Your task to perform on an android device: Open privacy settings Image 0: 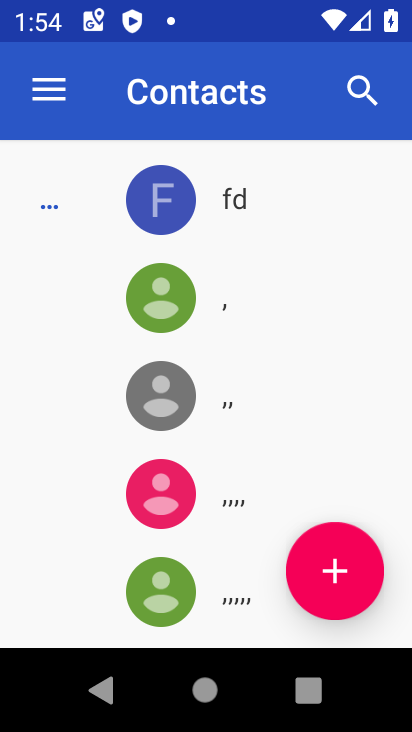
Step 0: press home button
Your task to perform on an android device: Open privacy settings Image 1: 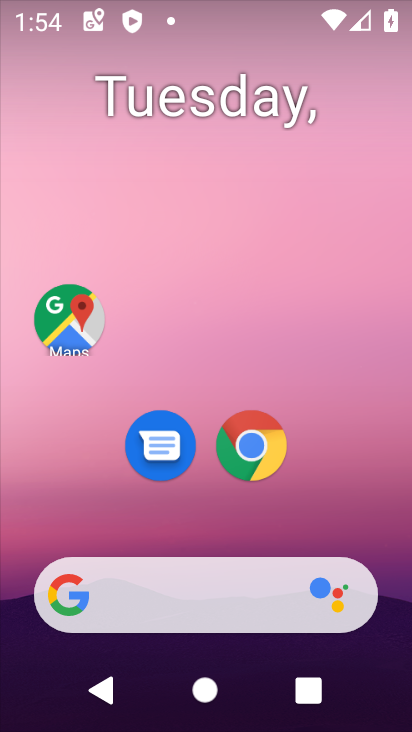
Step 1: drag from (336, 472) to (62, 1)
Your task to perform on an android device: Open privacy settings Image 2: 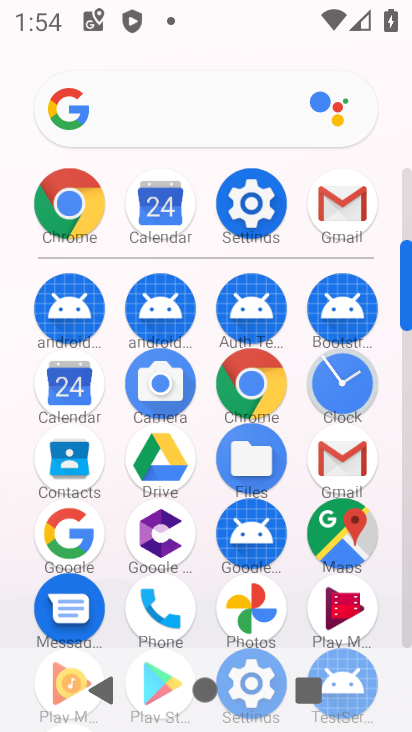
Step 2: click (234, 205)
Your task to perform on an android device: Open privacy settings Image 3: 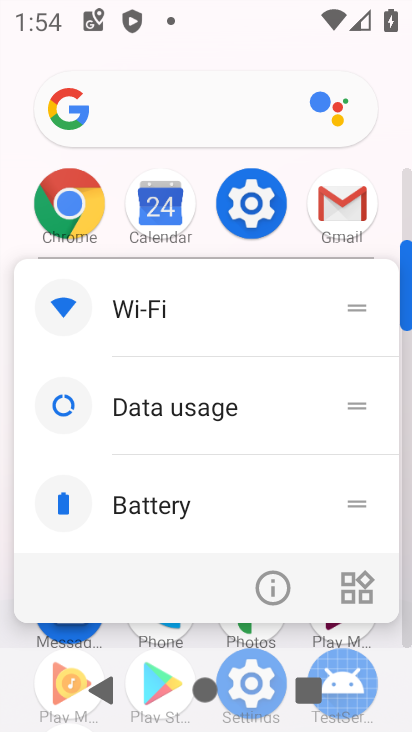
Step 3: click (250, 197)
Your task to perform on an android device: Open privacy settings Image 4: 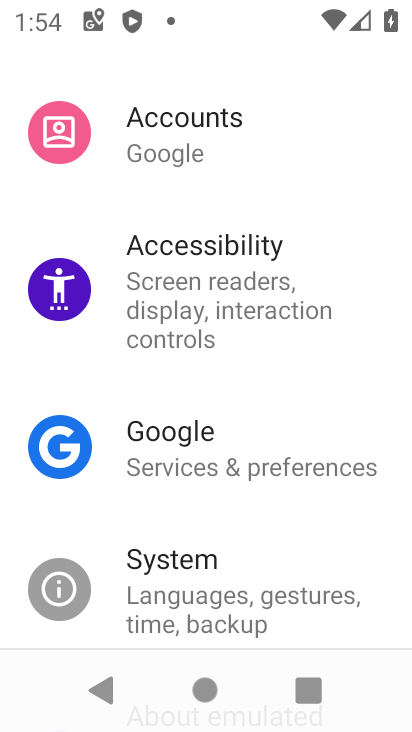
Step 4: drag from (284, 576) to (111, 187)
Your task to perform on an android device: Open privacy settings Image 5: 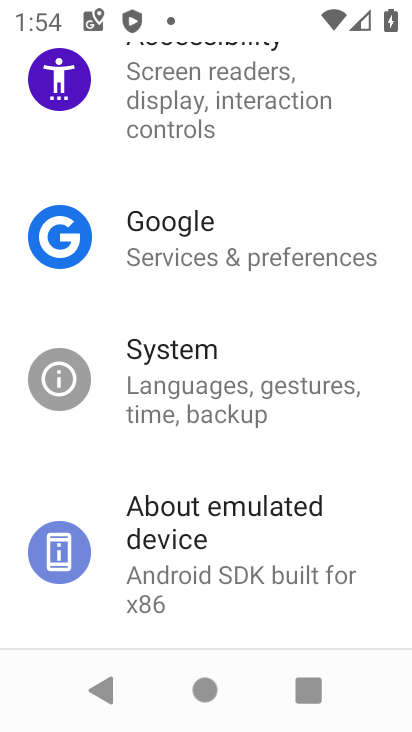
Step 5: drag from (235, 536) to (86, 152)
Your task to perform on an android device: Open privacy settings Image 6: 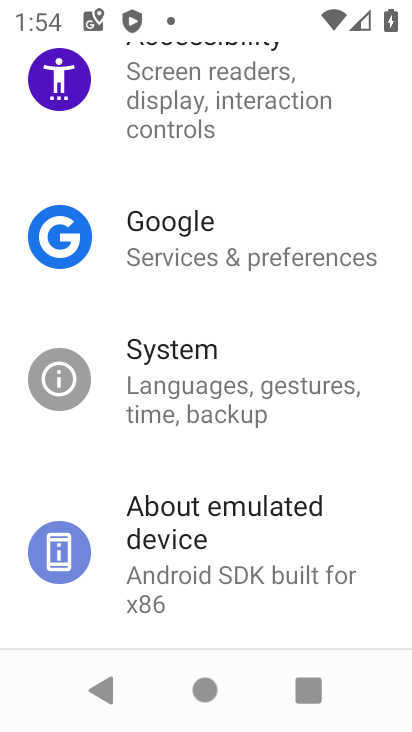
Step 6: drag from (123, 256) to (237, 585)
Your task to perform on an android device: Open privacy settings Image 7: 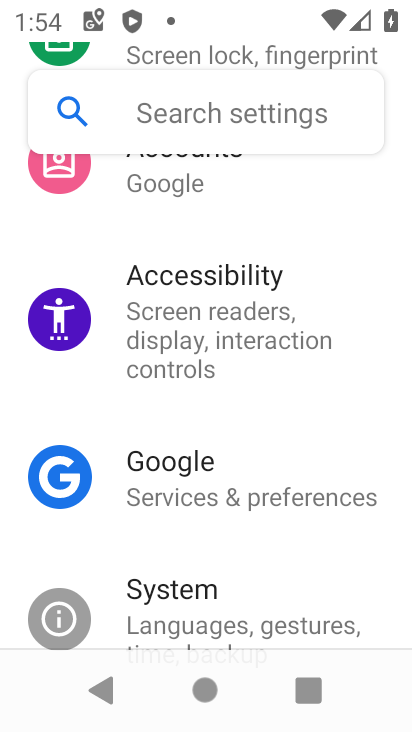
Step 7: drag from (127, 295) to (240, 639)
Your task to perform on an android device: Open privacy settings Image 8: 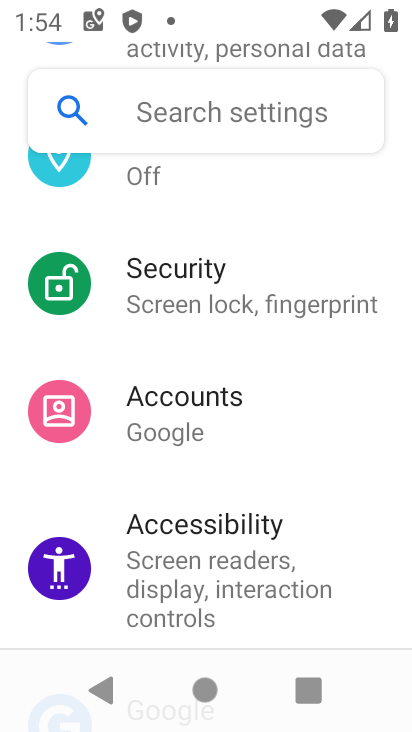
Step 8: drag from (177, 304) to (269, 638)
Your task to perform on an android device: Open privacy settings Image 9: 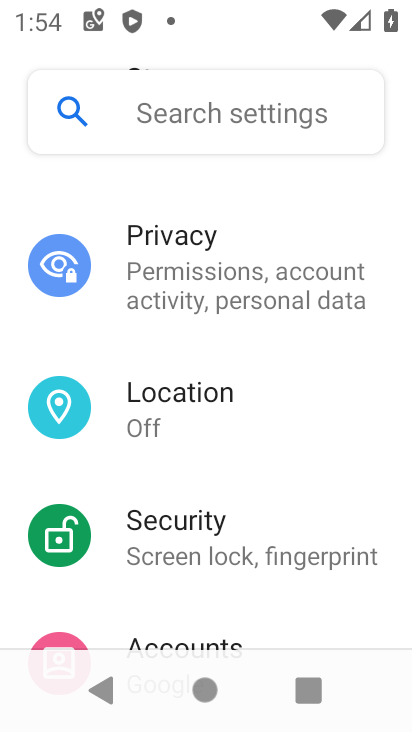
Step 9: click (160, 297)
Your task to perform on an android device: Open privacy settings Image 10: 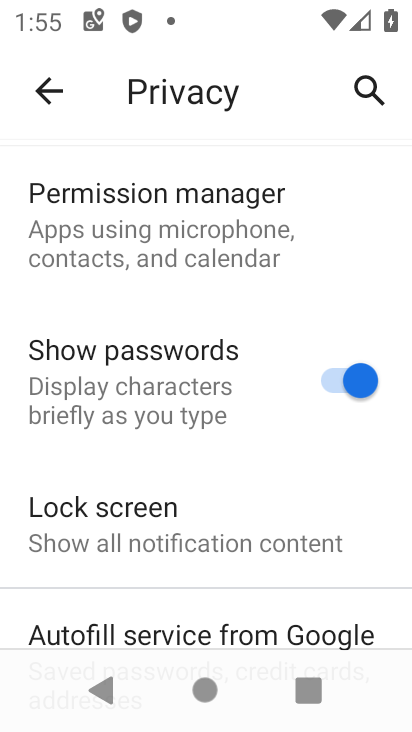
Step 10: task complete